Your task to perform on an android device: visit the assistant section in the google photos Image 0: 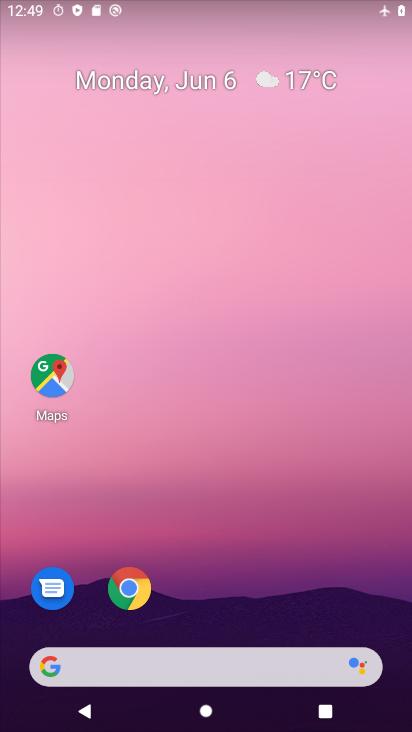
Step 0: drag from (294, 577) to (244, 45)
Your task to perform on an android device: visit the assistant section in the google photos Image 1: 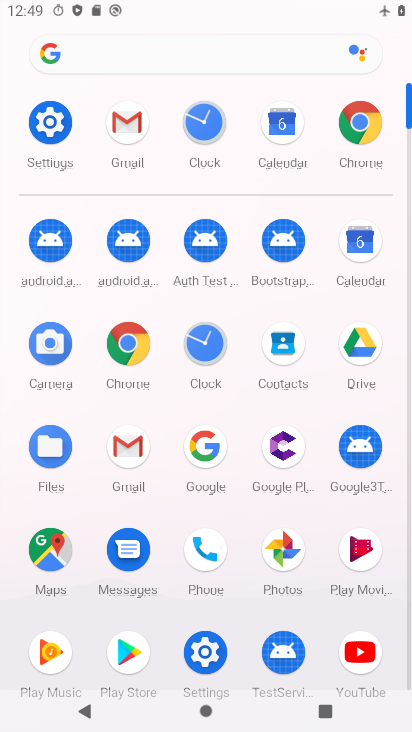
Step 1: click (272, 543)
Your task to perform on an android device: visit the assistant section in the google photos Image 2: 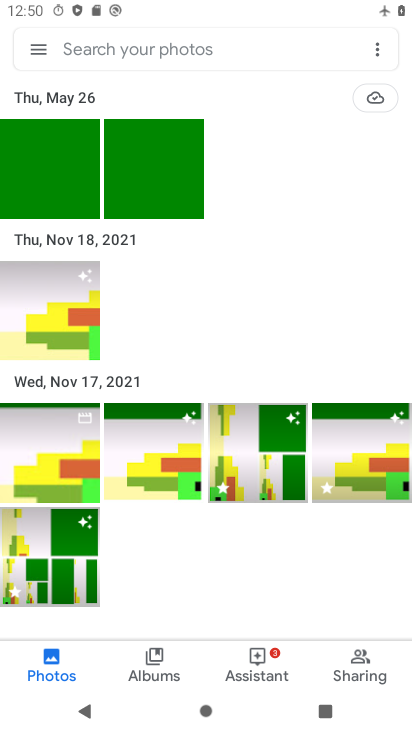
Step 2: click (287, 674)
Your task to perform on an android device: visit the assistant section in the google photos Image 3: 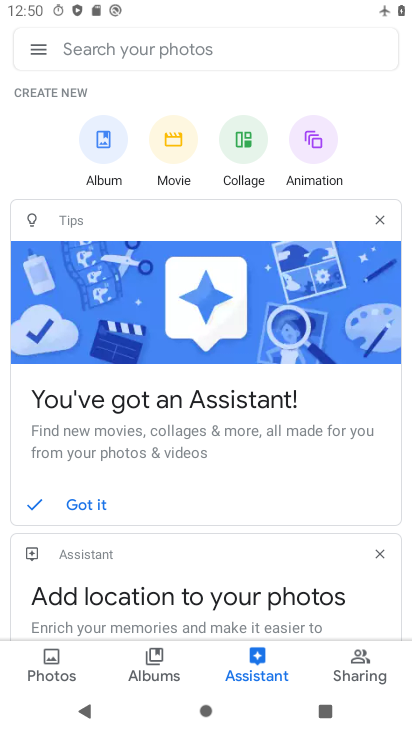
Step 3: task complete